Your task to perform on an android device: turn smart compose on in the gmail app Image 0: 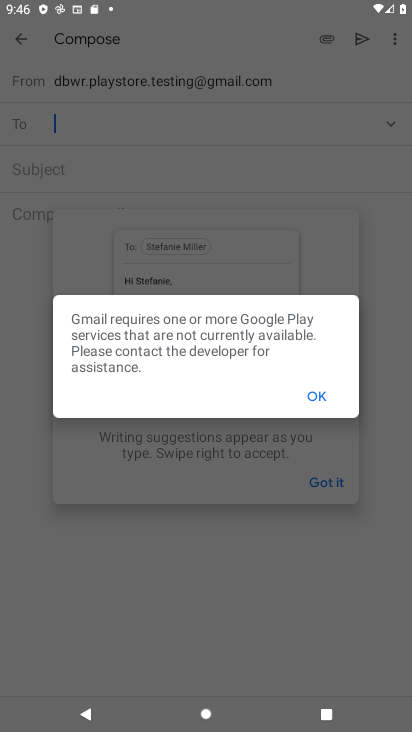
Step 0: click (321, 401)
Your task to perform on an android device: turn smart compose on in the gmail app Image 1: 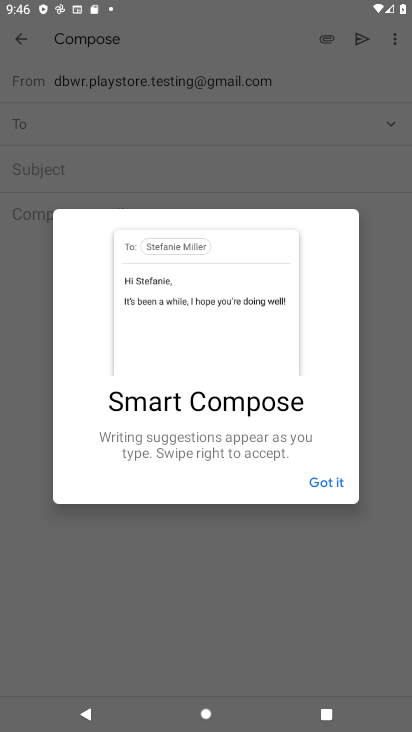
Step 1: press home button
Your task to perform on an android device: turn smart compose on in the gmail app Image 2: 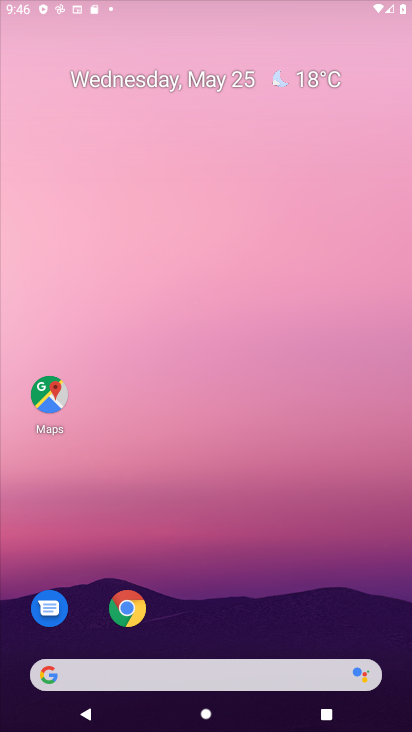
Step 2: drag from (311, 611) to (190, 90)
Your task to perform on an android device: turn smart compose on in the gmail app Image 3: 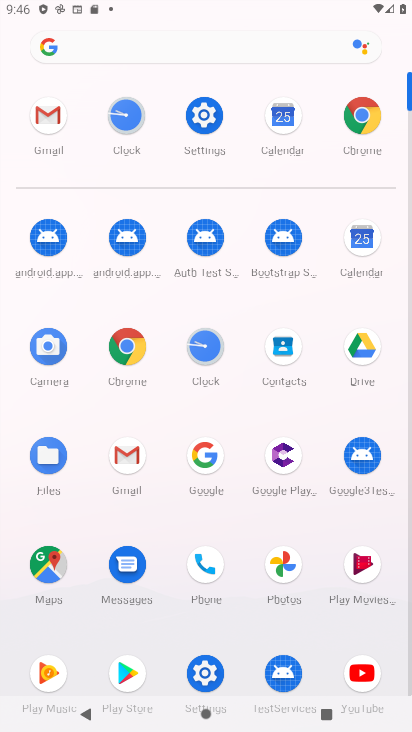
Step 3: click (132, 461)
Your task to perform on an android device: turn smart compose on in the gmail app Image 4: 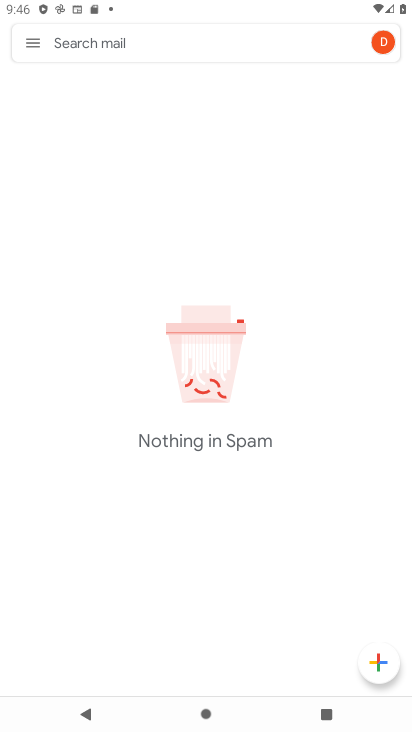
Step 4: click (29, 37)
Your task to perform on an android device: turn smart compose on in the gmail app Image 5: 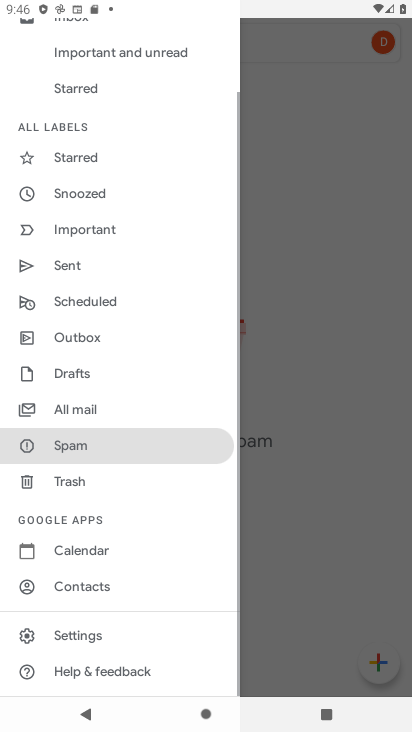
Step 5: click (111, 630)
Your task to perform on an android device: turn smart compose on in the gmail app Image 6: 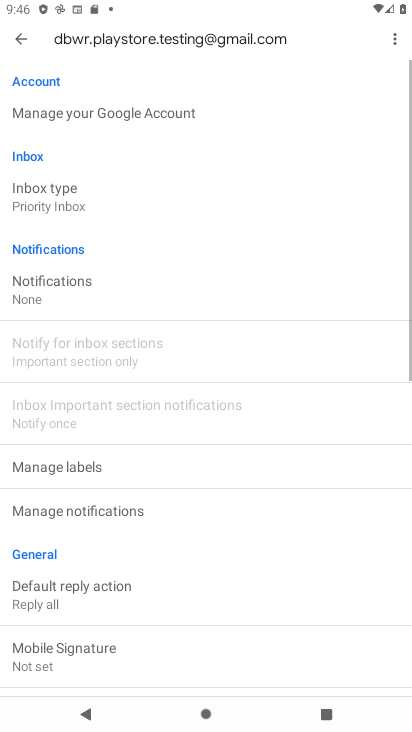
Step 6: task complete